Your task to perform on an android device: turn on sleep mode Image 0: 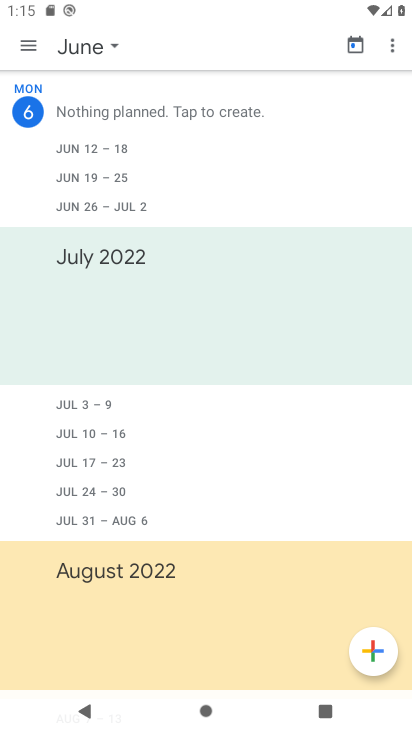
Step 0: press home button
Your task to perform on an android device: turn on sleep mode Image 1: 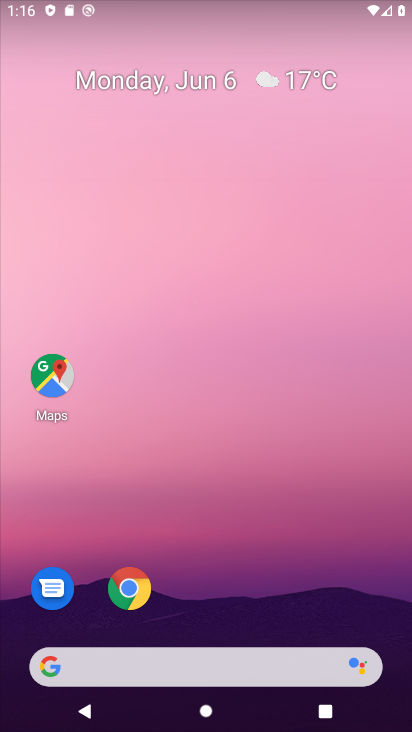
Step 1: drag from (246, 720) to (186, 10)
Your task to perform on an android device: turn on sleep mode Image 2: 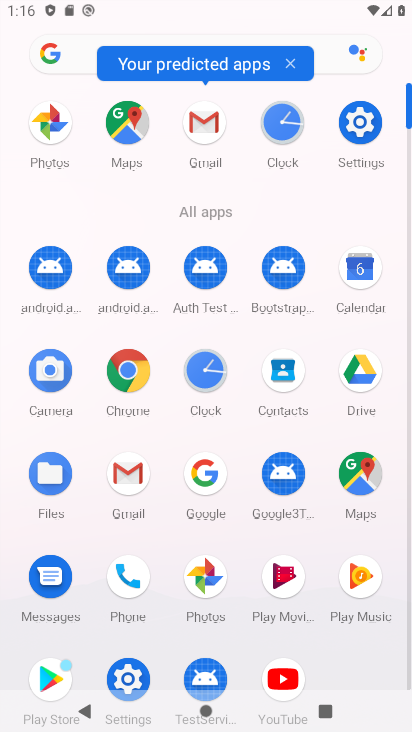
Step 2: click (358, 134)
Your task to perform on an android device: turn on sleep mode Image 3: 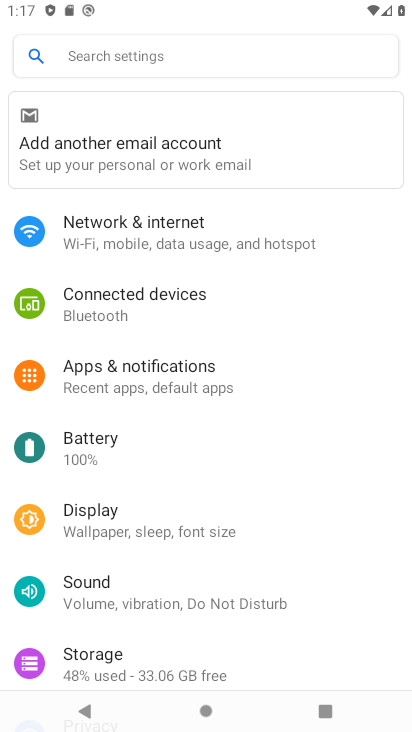
Step 3: click (209, 521)
Your task to perform on an android device: turn on sleep mode Image 4: 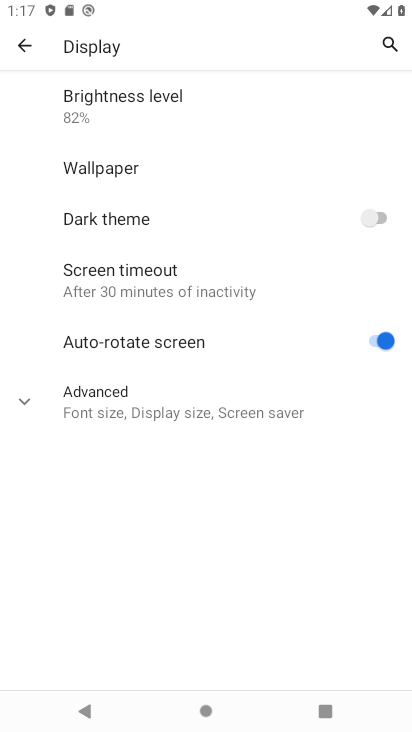
Step 4: task complete